Your task to perform on an android device: Open Android settings Image 0: 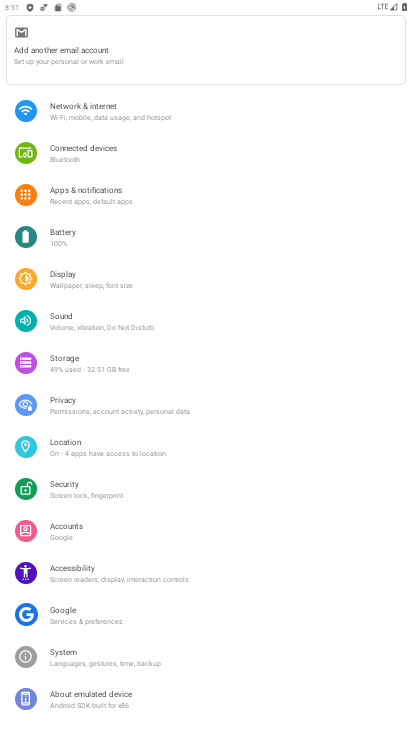
Step 0: press home button
Your task to perform on an android device: Open Android settings Image 1: 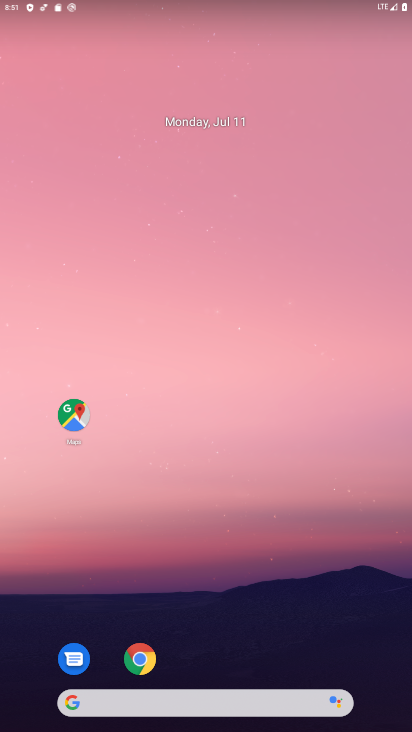
Step 1: drag from (245, 110) to (60, 217)
Your task to perform on an android device: Open Android settings Image 2: 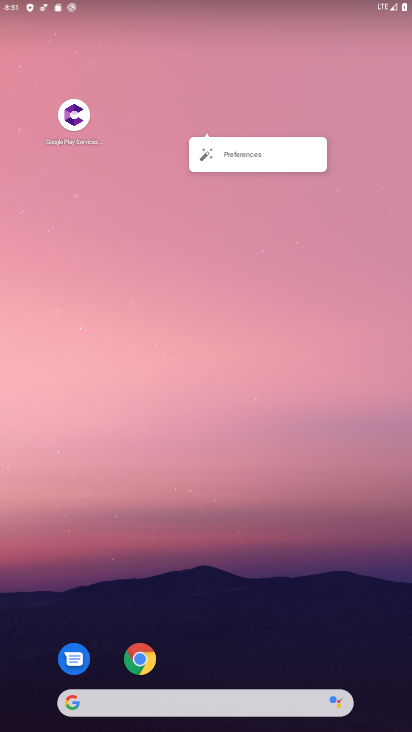
Step 2: drag from (15, 708) to (205, 206)
Your task to perform on an android device: Open Android settings Image 3: 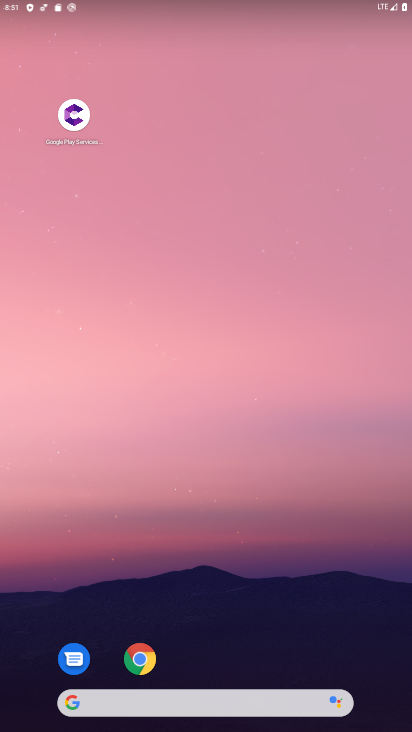
Step 3: drag from (23, 694) to (222, 158)
Your task to perform on an android device: Open Android settings Image 4: 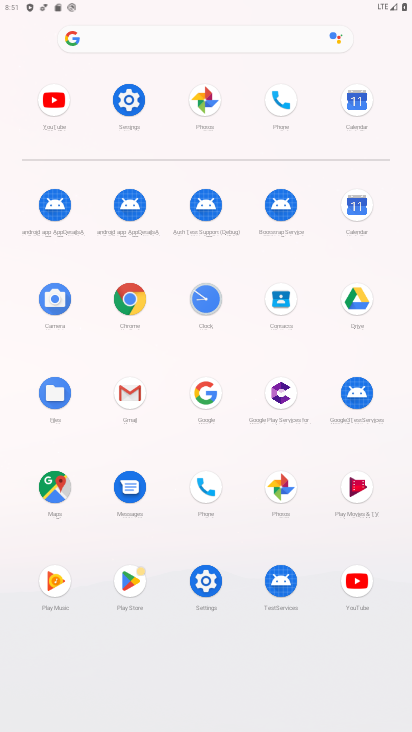
Step 4: click (213, 580)
Your task to perform on an android device: Open Android settings Image 5: 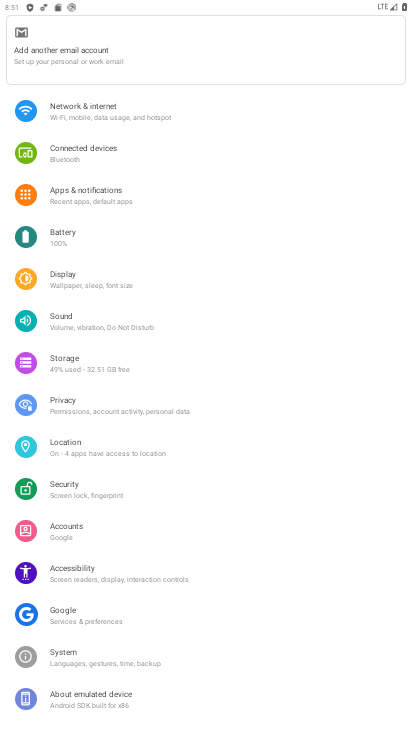
Step 5: click (68, 701)
Your task to perform on an android device: Open Android settings Image 6: 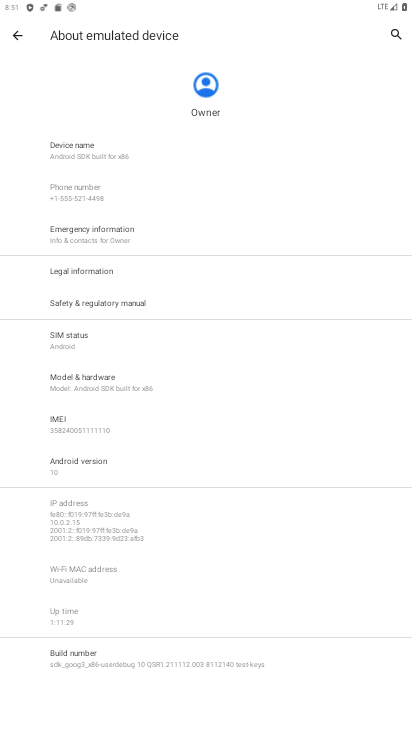
Step 6: task complete